Your task to perform on an android device: Open the map Image 0: 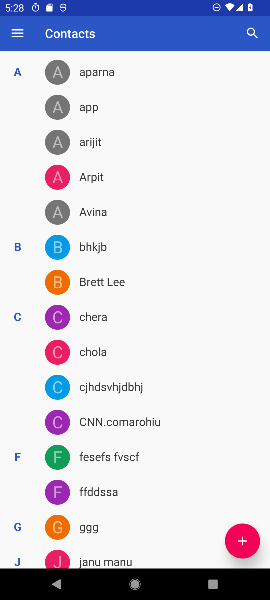
Step 0: press home button
Your task to perform on an android device: Open the map Image 1: 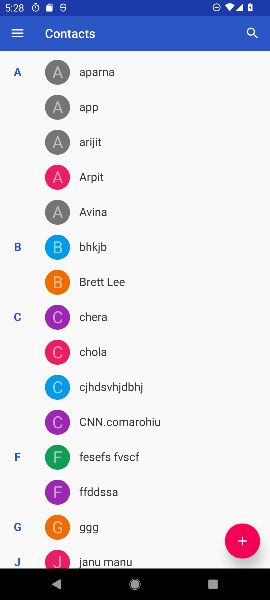
Step 1: press home button
Your task to perform on an android device: Open the map Image 2: 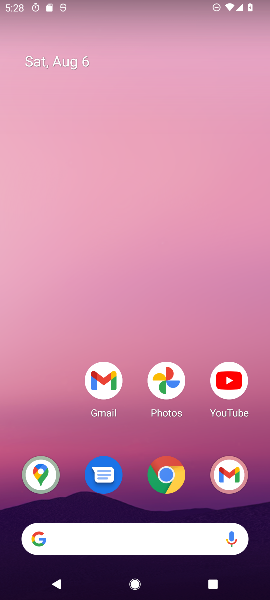
Step 2: click (22, 480)
Your task to perform on an android device: Open the map Image 3: 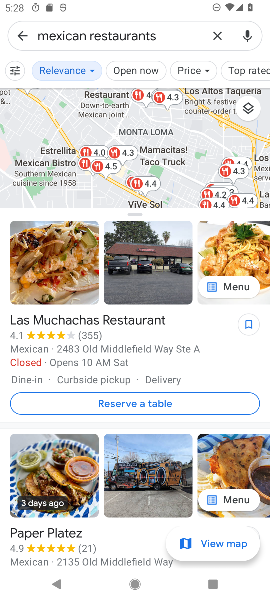
Step 3: click (22, 34)
Your task to perform on an android device: Open the map Image 4: 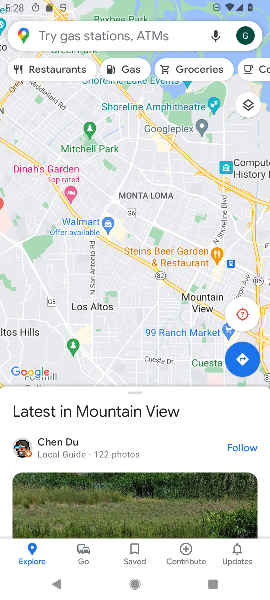
Step 4: task complete